Your task to perform on an android device: delete location history Image 0: 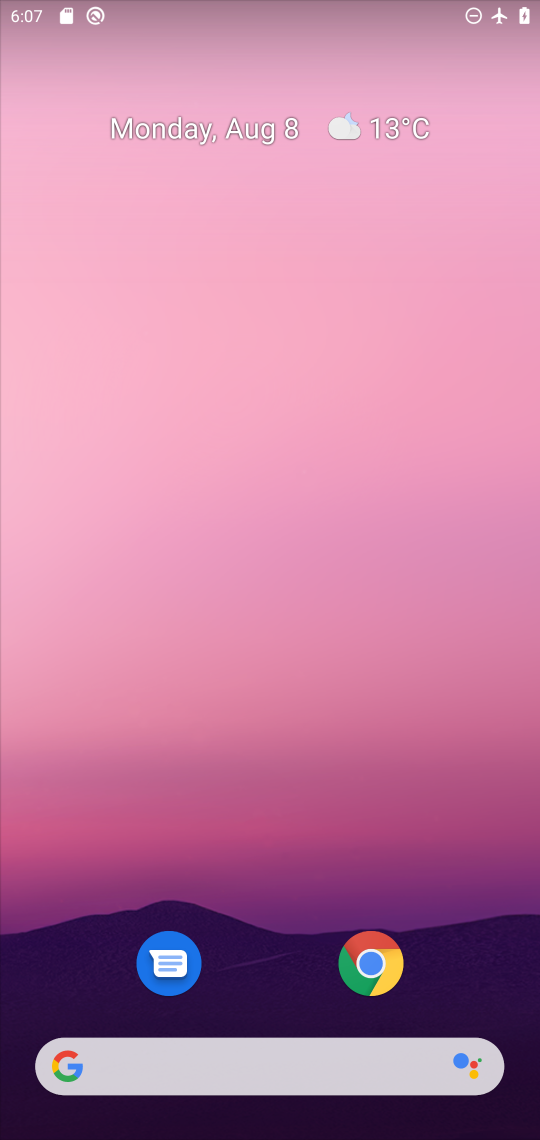
Step 0: drag from (276, 862) to (276, 55)
Your task to perform on an android device: delete location history Image 1: 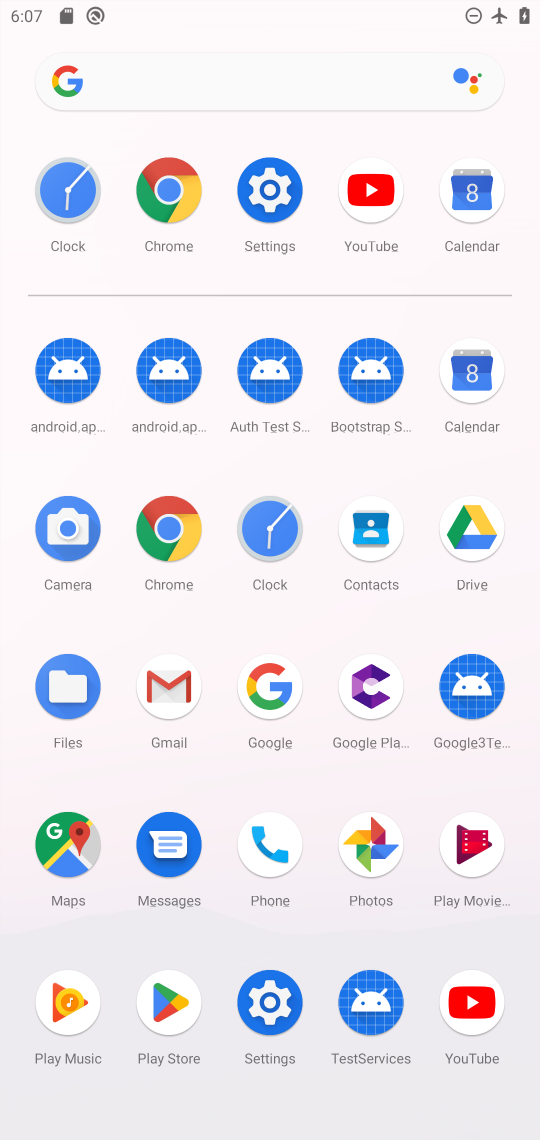
Step 1: click (56, 840)
Your task to perform on an android device: delete location history Image 2: 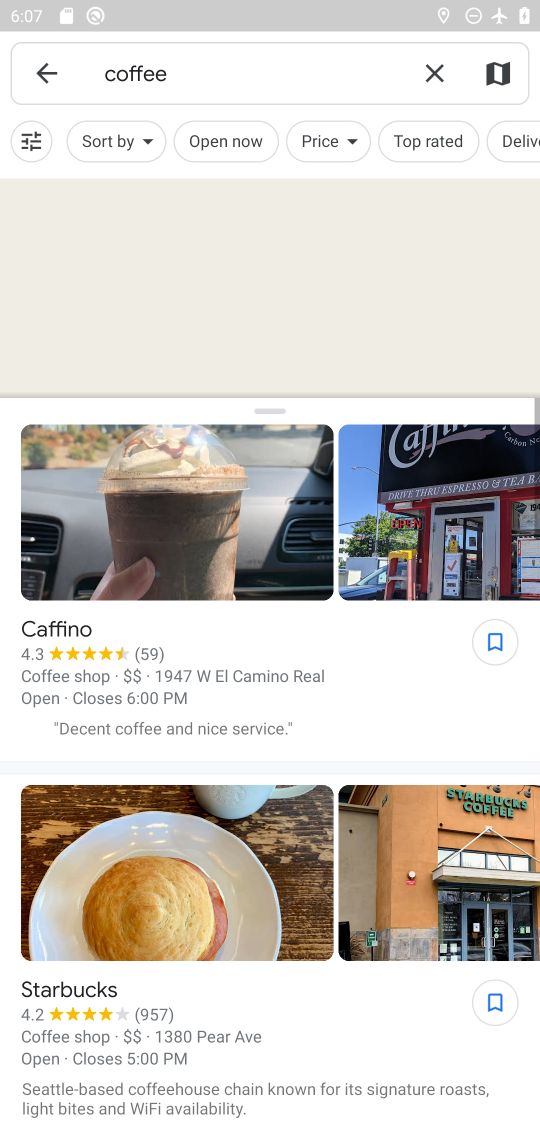
Step 2: click (49, 81)
Your task to perform on an android device: delete location history Image 3: 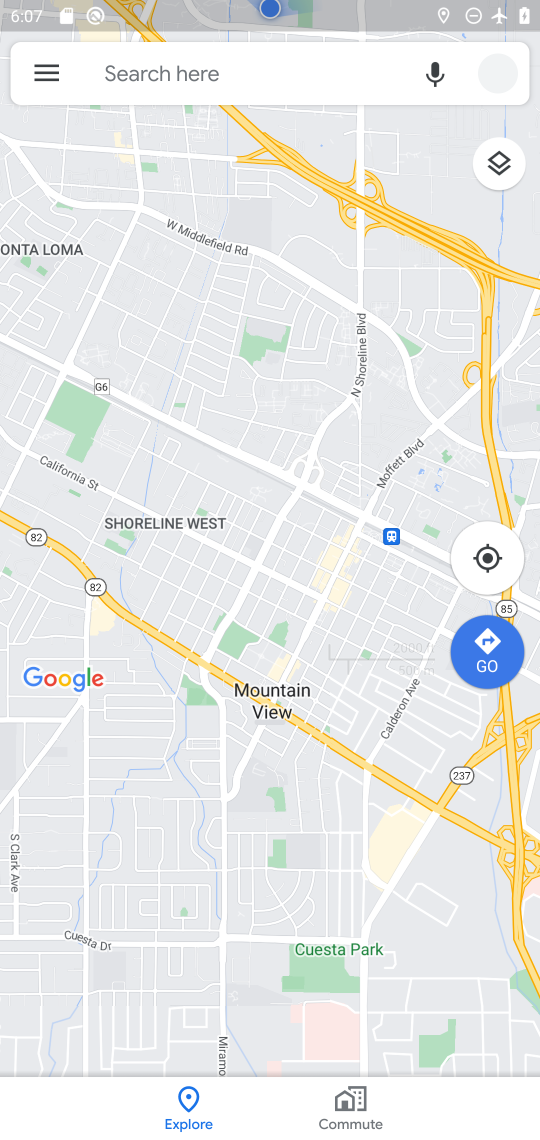
Step 3: click (49, 81)
Your task to perform on an android device: delete location history Image 4: 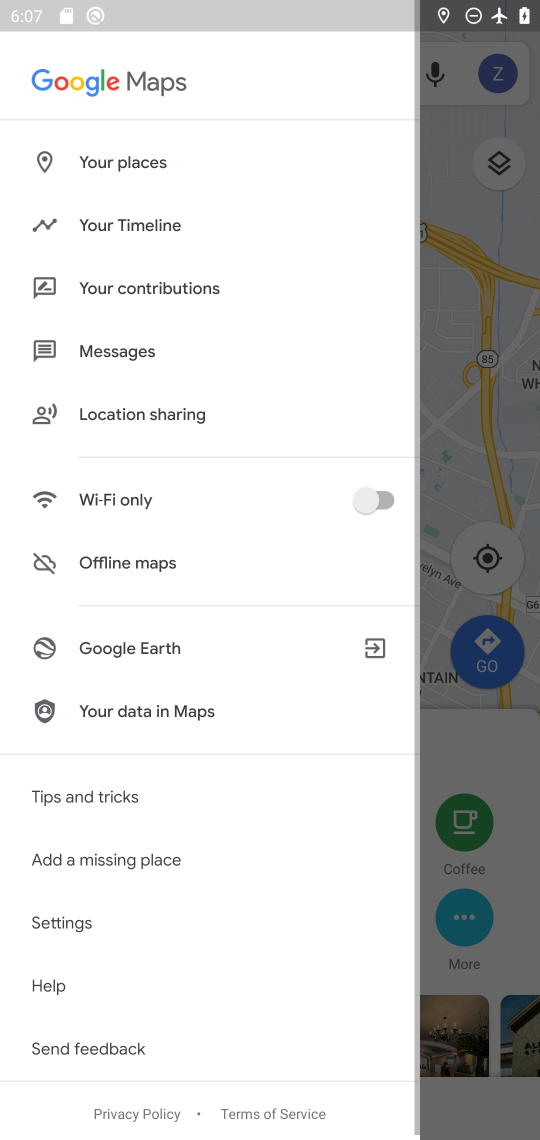
Step 4: click (138, 234)
Your task to perform on an android device: delete location history Image 5: 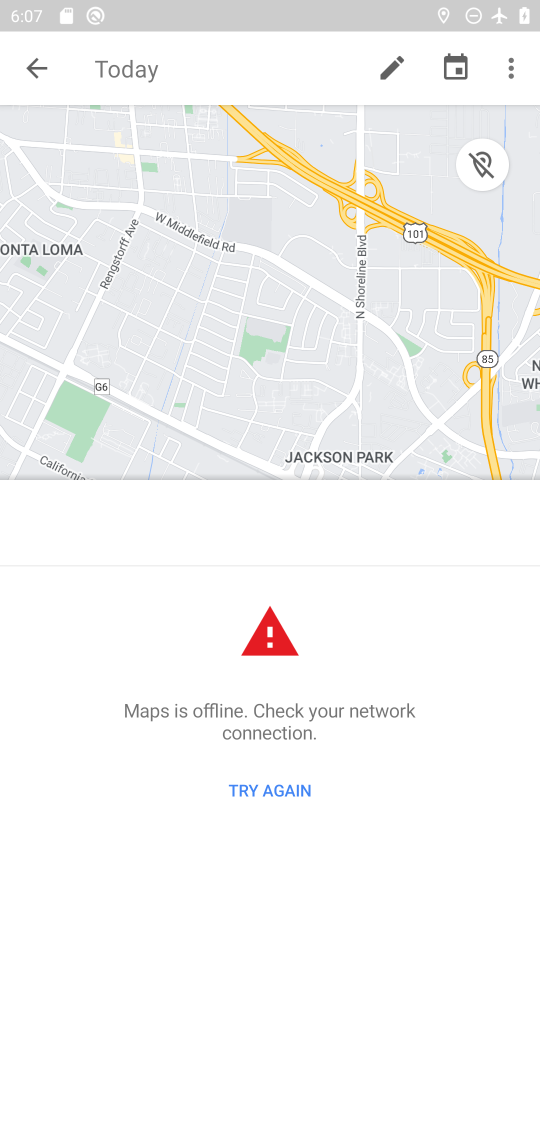
Step 5: click (521, 71)
Your task to perform on an android device: delete location history Image 6: 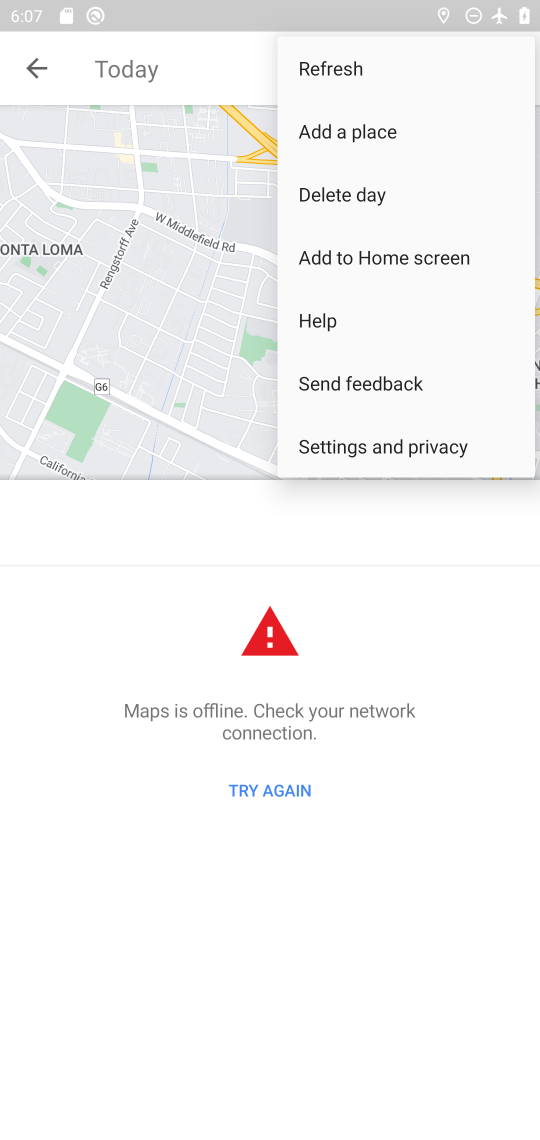
Step 6: click (367, 446)
Your task to perform on an android device: delete location history Image 7: 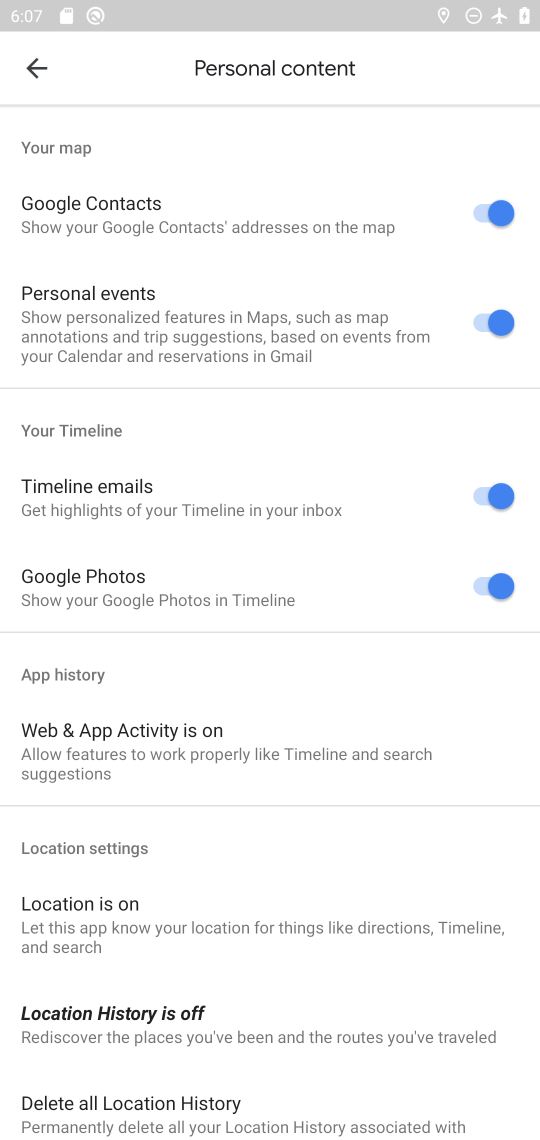
Step 7: click (155, 1108)
Your task to perform on an android device: delete location history Image 8: 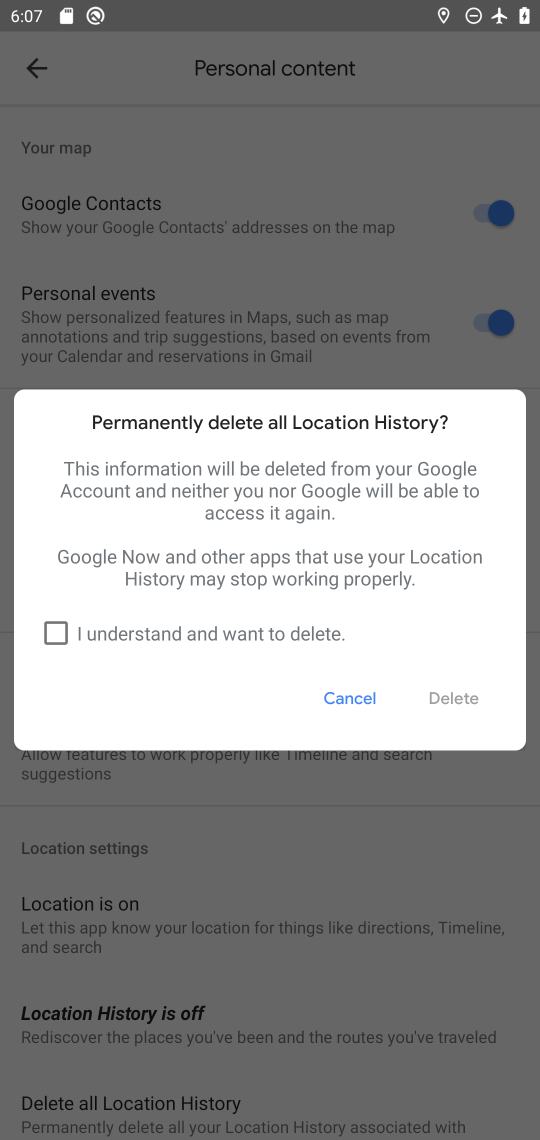
Step 8: click (43, 635)
Your task to perform on an android device: delete location history Image 9: 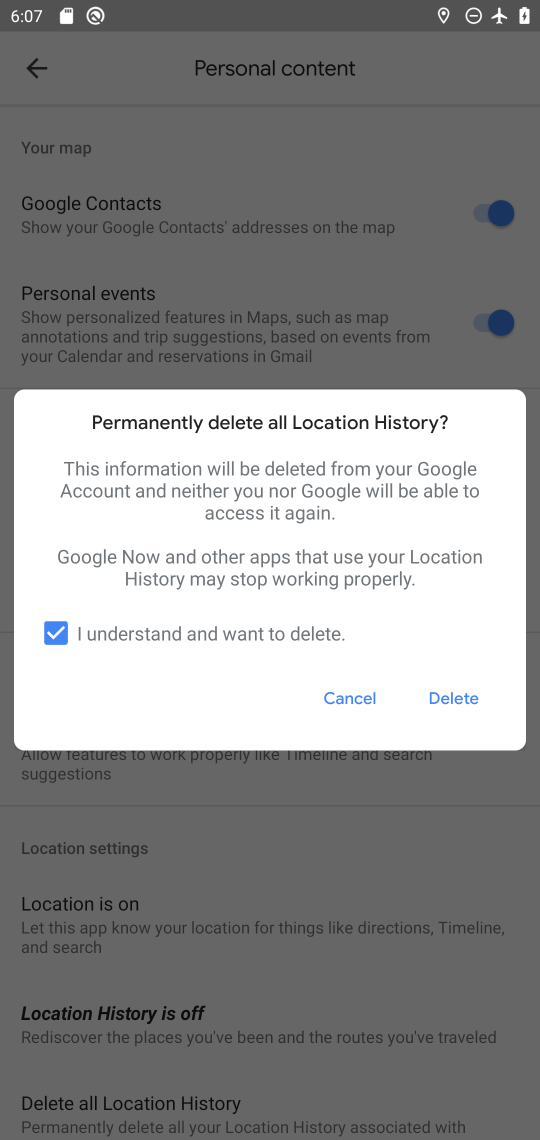
Step 9: click (484, 694)
Your task to perform on an android device: delete location history Image 10: 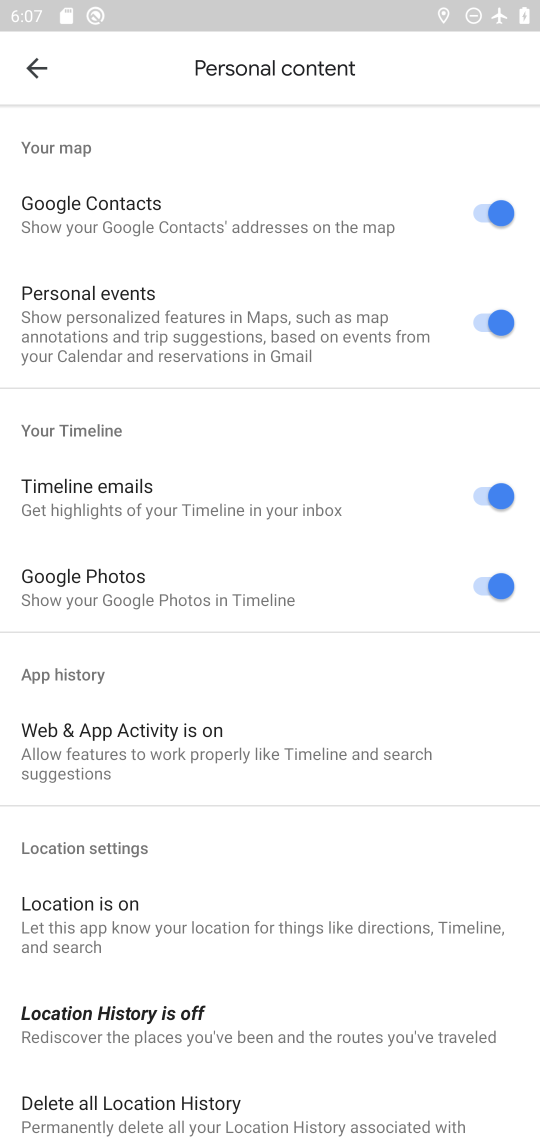
Step 10: task complete